Your task to perform on an android device: What's the weather going to be this weekend? Image 0: 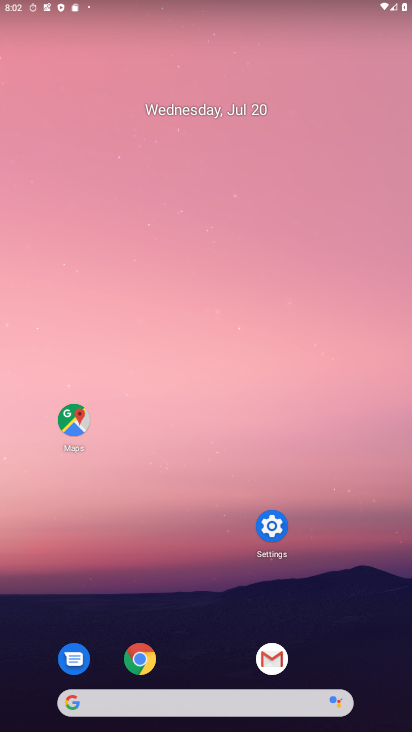
Step 0: click (192, 707)
Your task to perform on an android device: What's the weather going to be this weekend? Image 1: 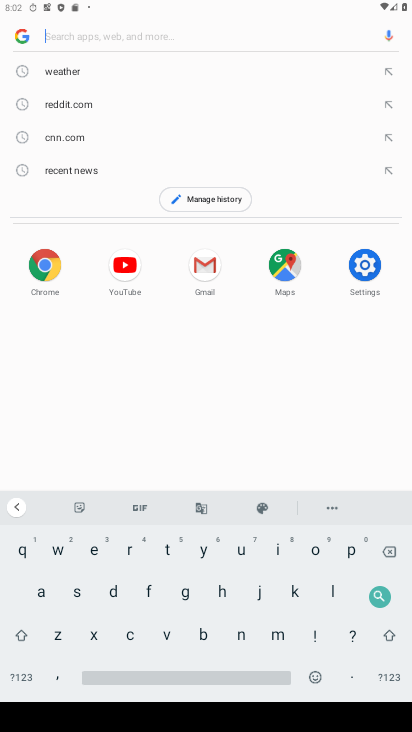
Step 1: click (57, 554)
Your task to perform on an android device: What's the weather going to be this weekend? Image 2: 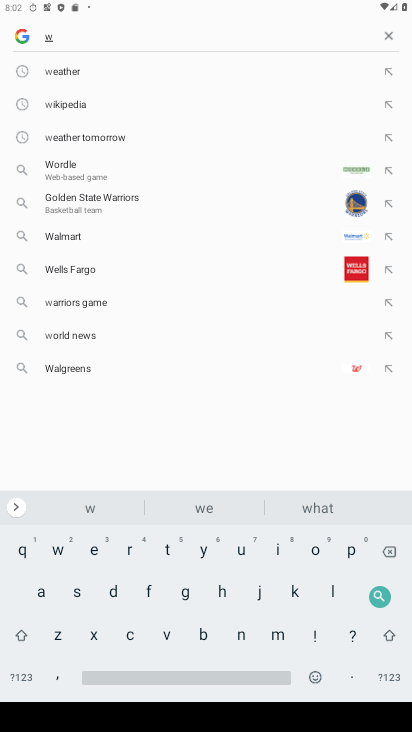
Step 2: click (218, 586)
Your task to perform on an android device: What's the weather going to be this weekend? Image 3: 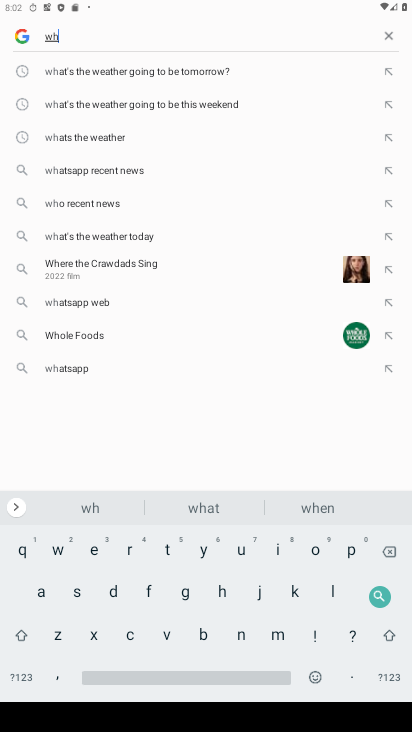
Step 3: click (31, 592)
Your task to perform on an android device: What's the weather going to be this weekend? Image 4: 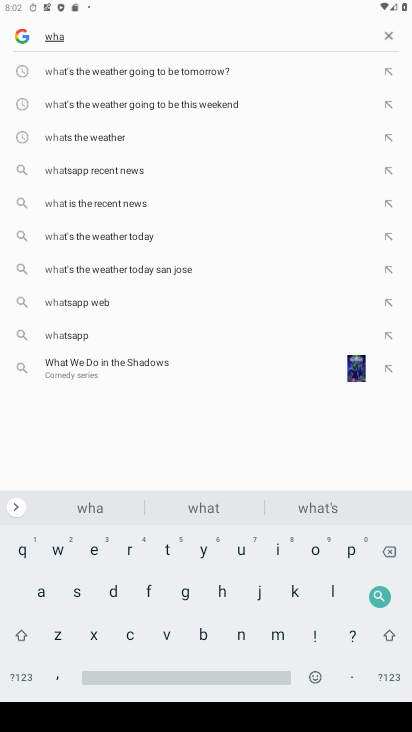
Step 4: click (114, 105)
Your task to perform on an android device: What's the weather going to be this weekend? Image 5: 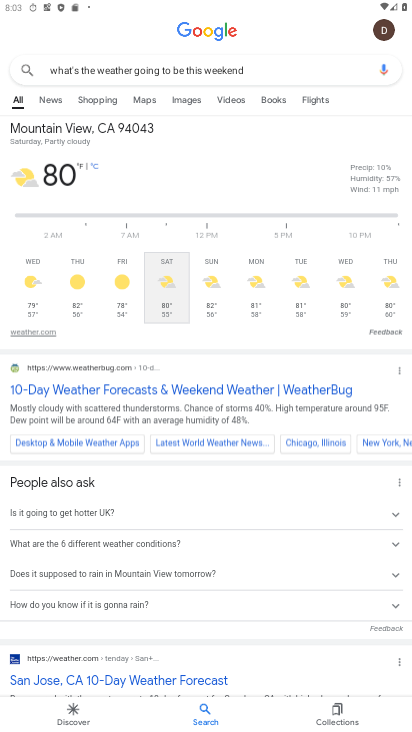
Step 5: task complete